Your task to perform on an android device: Play the new Ed Sheeran video on YouTube Image 0: 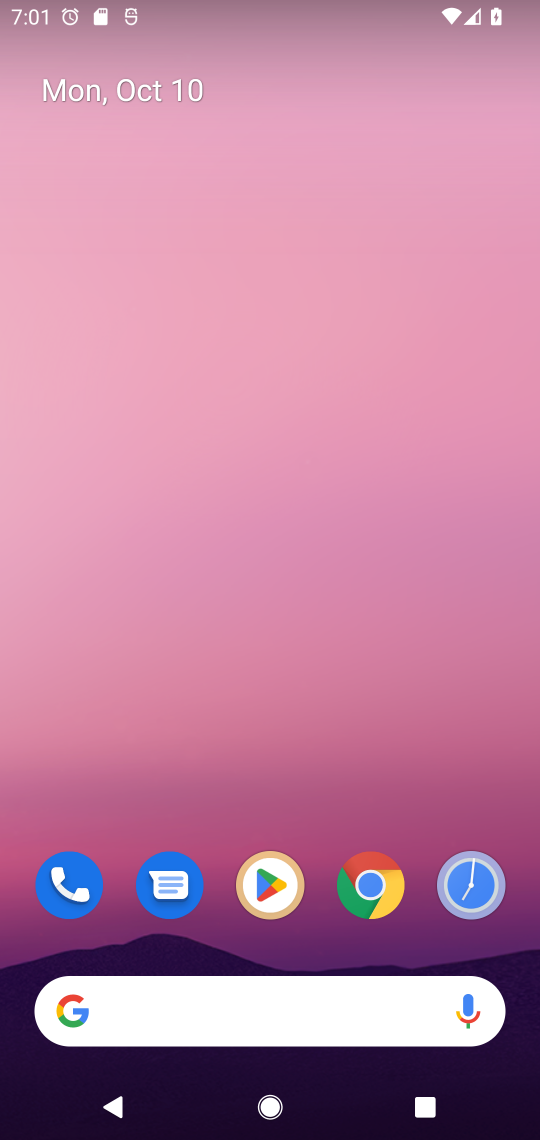
Step 0: drag from (379, 949) to (303, 563)
Your task to perform on an android device: Play the new Ed Sheeran video on YouTube Image 1: 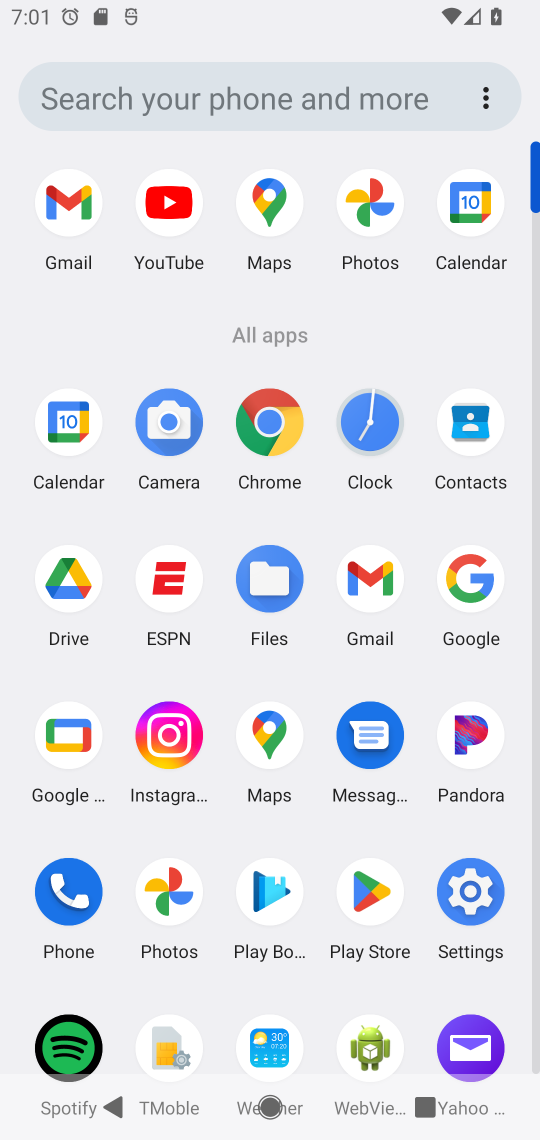
Step 1: click (181, 220)
Your task to perform on an android device: Play the new Ed Sheeran video on YouTube Image 2: 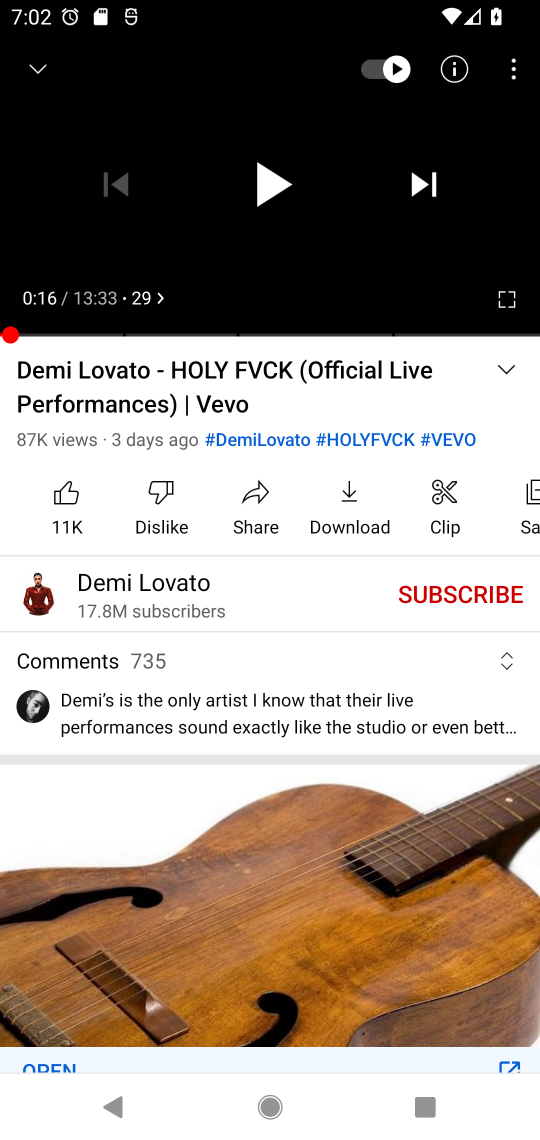
Step 2: click (39, 75)
Your task to perform on an android device: Play the new Ed Sheeran video on YouTube Image 3: 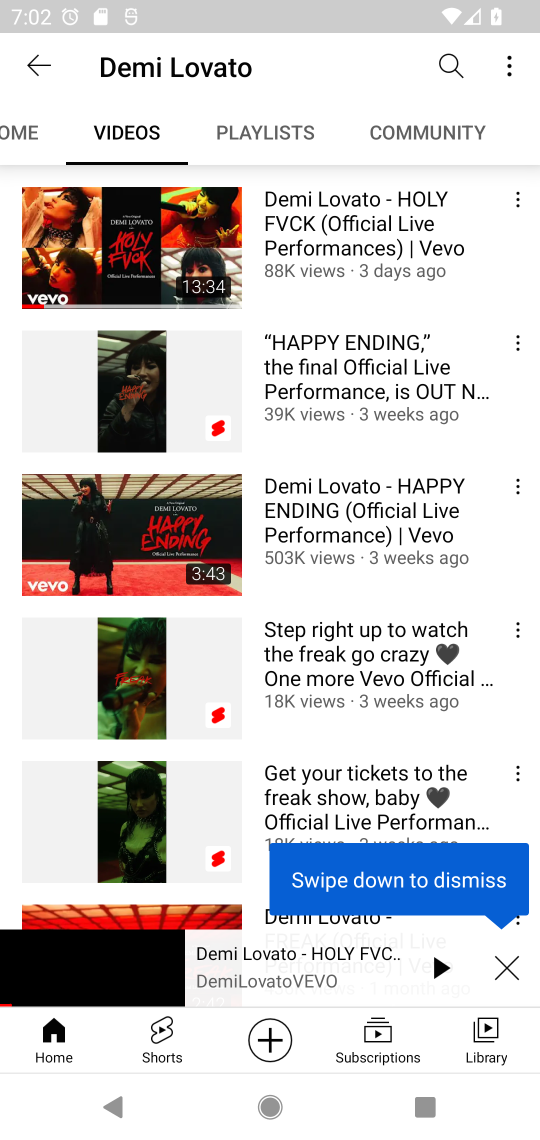
Step 3: click (446, 68)
Your task to perform on an android device: Play the new Ed Sheeran video on YouTube Image 4: 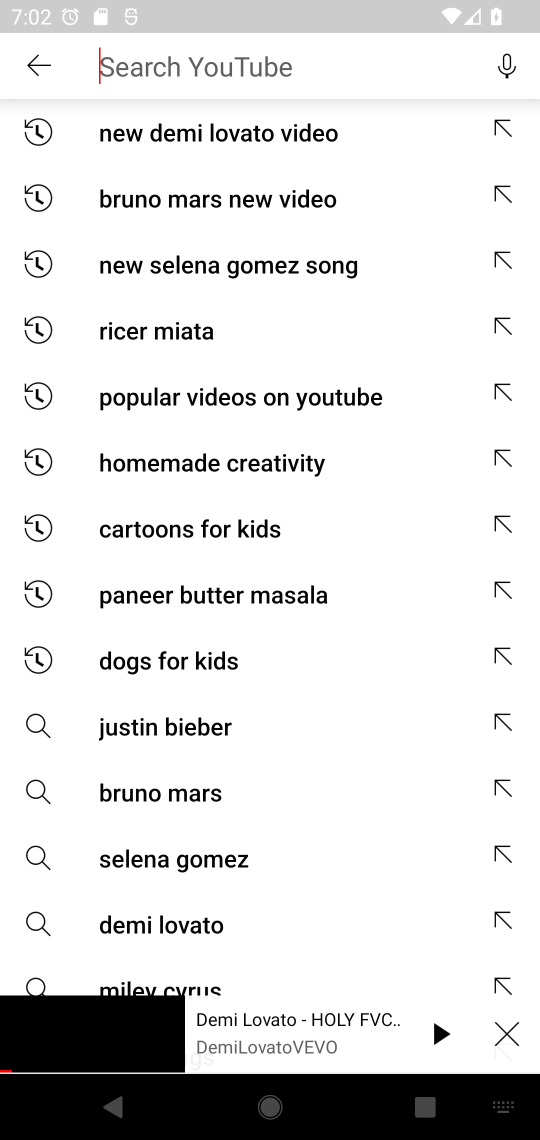
Step 4: click (289, 77)
Your task to perform on an android device: Play the new Ed Sheeran video on YouTube Image 5: 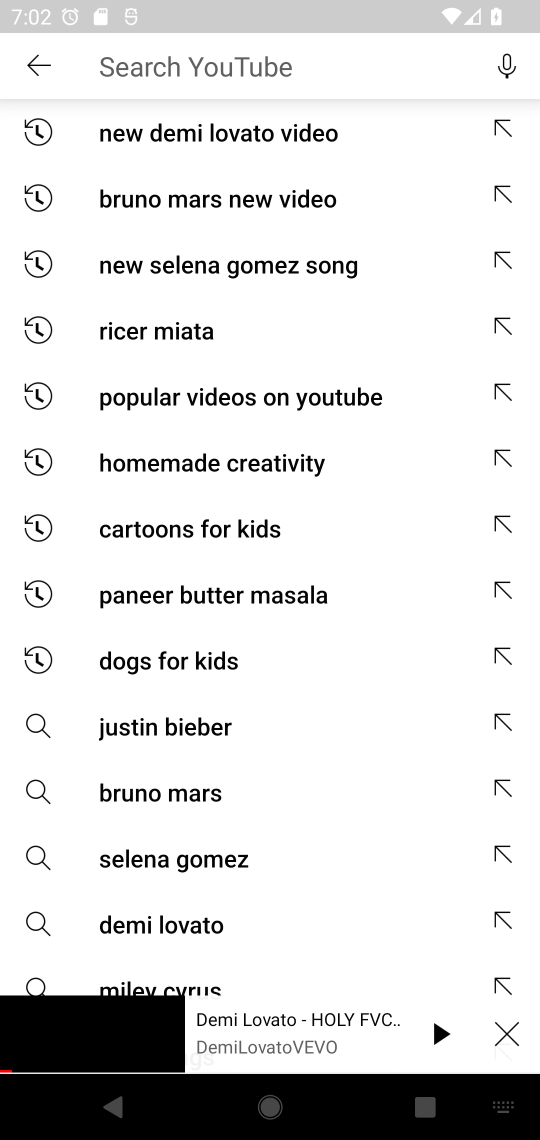
Step 5: type "new Ed Sheeran video"
Your task to perform on an android device: Play the new Ed Sheeran video on YouTube Image 6: 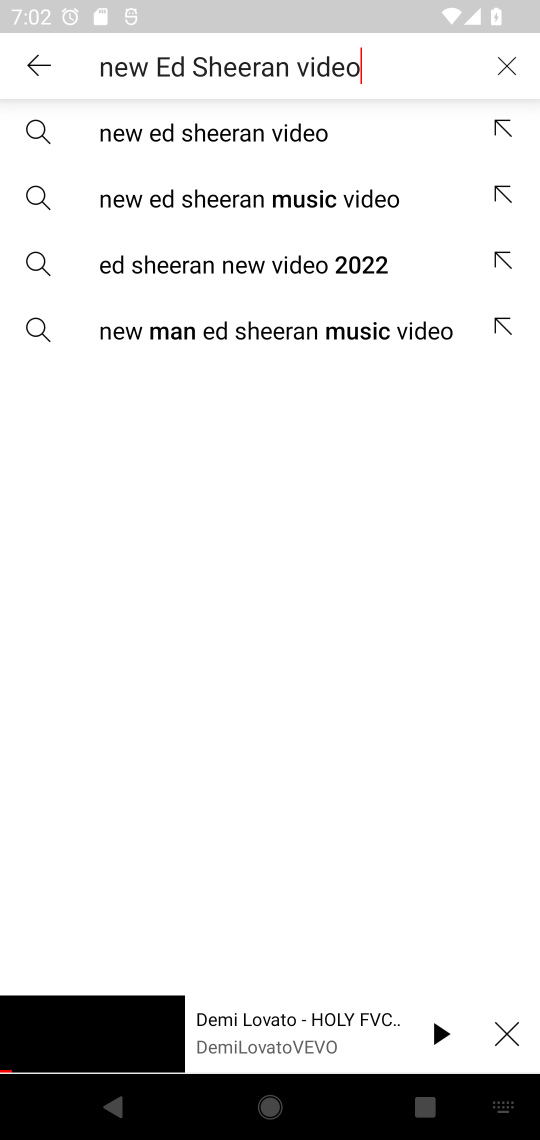
Step 6: click (245, 140)
Your task to perform on an android device: Play the new Ed Sheeran video on YouTube Image 7: 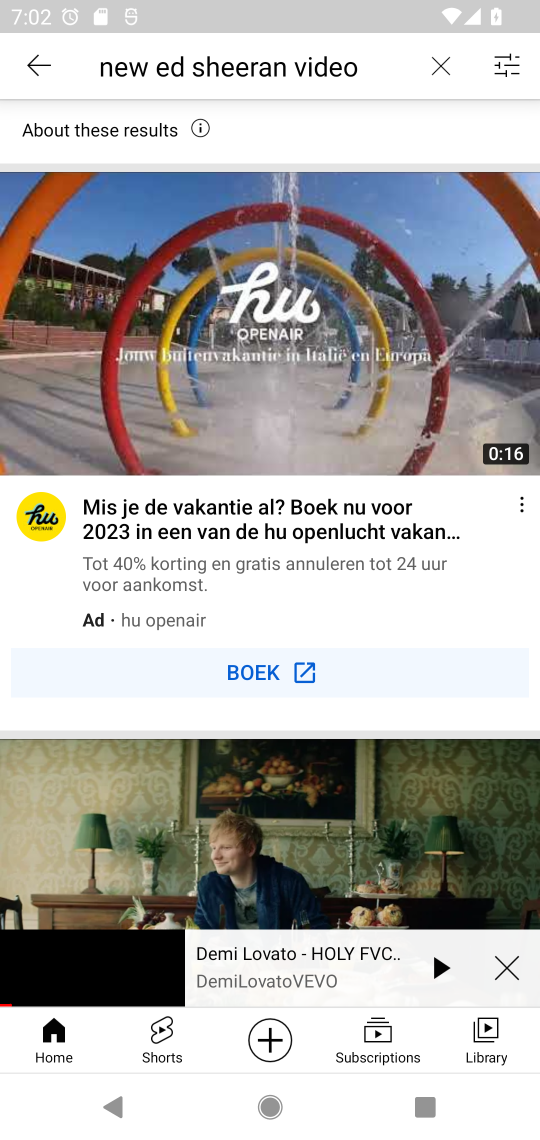
Step 7: drag from (262, 714) to (277, 179)
Your task to perform on an android device: Play the new Ed Sheeran video on YouTube Image 8: 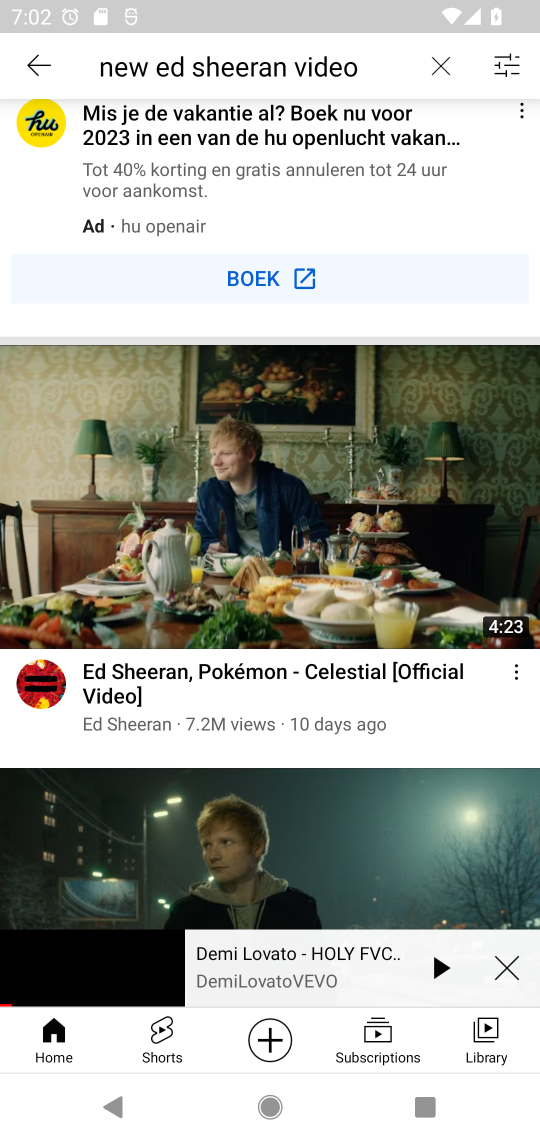
Step 8: click (245, 601)
Your task to perform on an android device: Play the new Ed Sheeran video on YouTube Image 9: 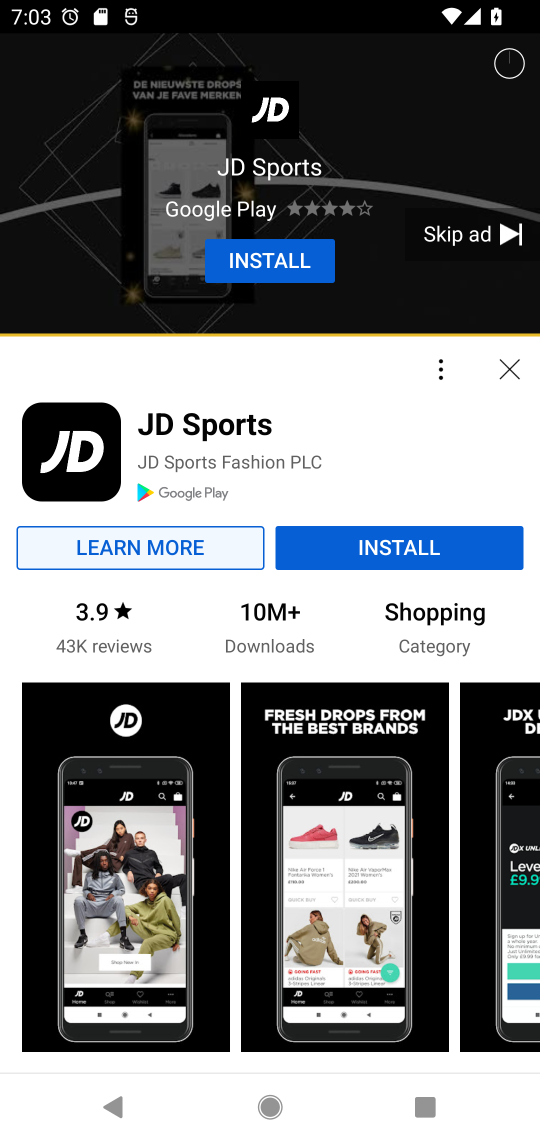
Step 9: click (467, 232)
Your task to perform on an android device: Play the new Ed Sheeran video on YouTube Image 10: 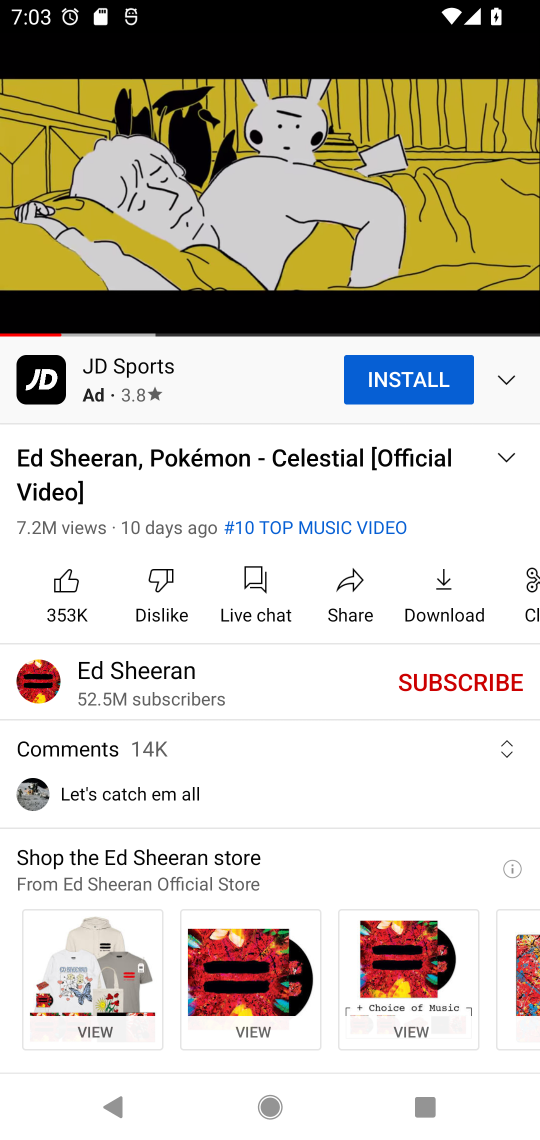
Step 10: task complete